Your task to perform on an android device: Open calendar and show me the third week of next month Image 0: 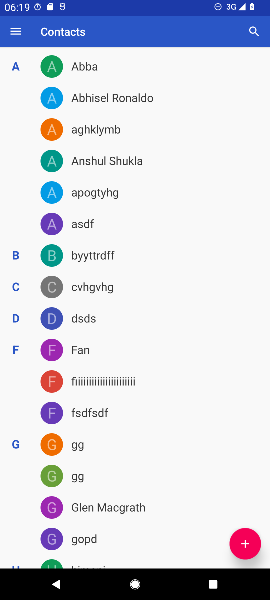
Step 0: press home button
Your task to perform on an android device: Open calendar and show me the third week of next month Image 1: 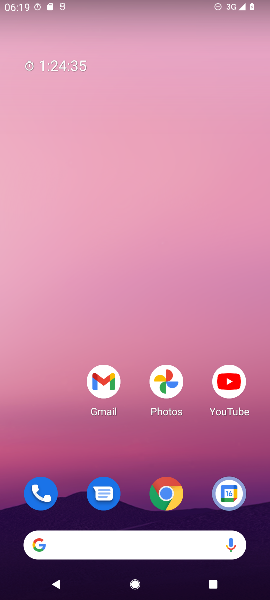
Step 1: drag from (66, 430) to (40, 65)
Your task to perform on an android device: Open calendar and show me the third week of next month Image 2: 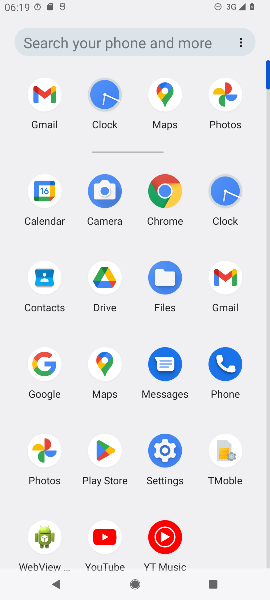
Step 2: click (52, 203)
Your task to perform on an android device: Open calendar and show me the third week of next month Image 3: 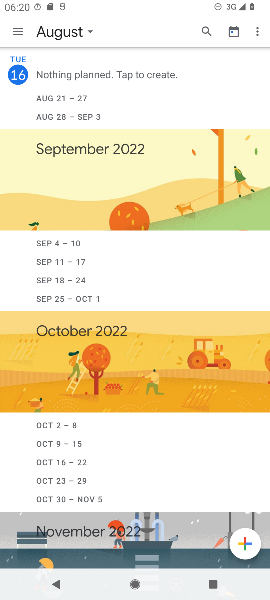
Step 3: click (86, 34)
Your task to perform on an android device: Open calendar and show me the third week of next month Image 4: 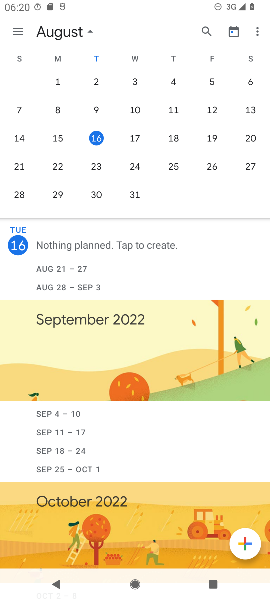
Step 4: drag from (256, 93) to (26, 94)
Your task to perform on an android device: Open calendar and show me the third week of next month Image 5: 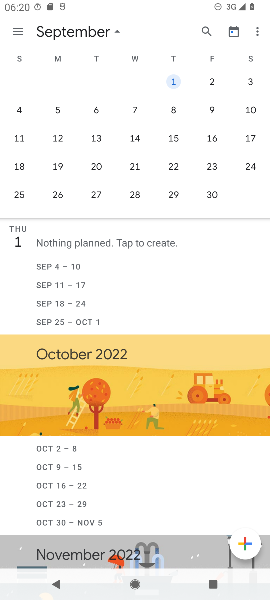
Step 5: click (52, 167)
Your task to perform on an android device: Open calendar and show me the third week of next month Image 6: 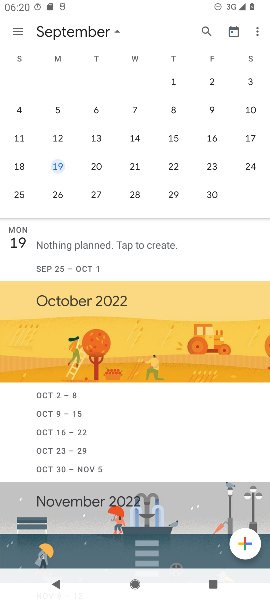
Step 6: task complete